Your task to perform on an android device: turn off translation in the chrome app Image 0: 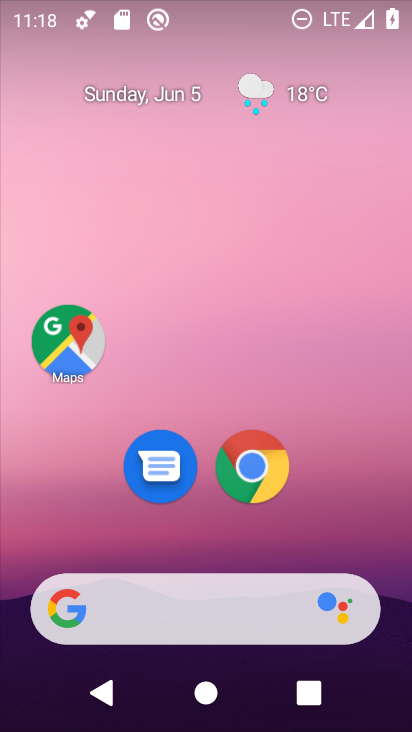
Step 0: drag from (347, 511) to (231, 30)
Your task to perform on an android device: turn off translation in the chrome app Image 1: 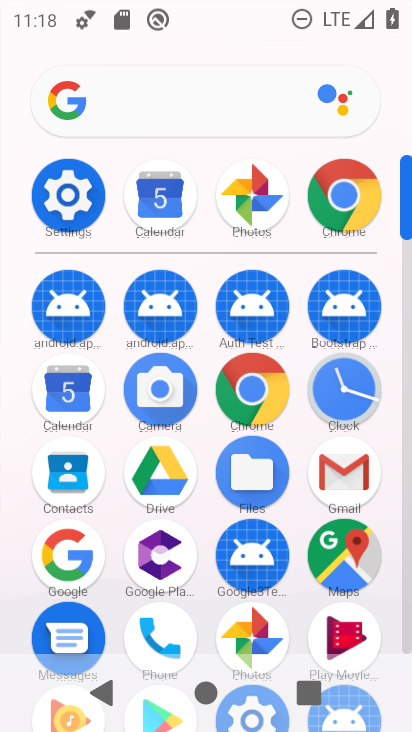
Step 1: drag from (6, 607) to (4, 275)
Your task to perform on an android device: turn off translation in the chrome app Image 2: 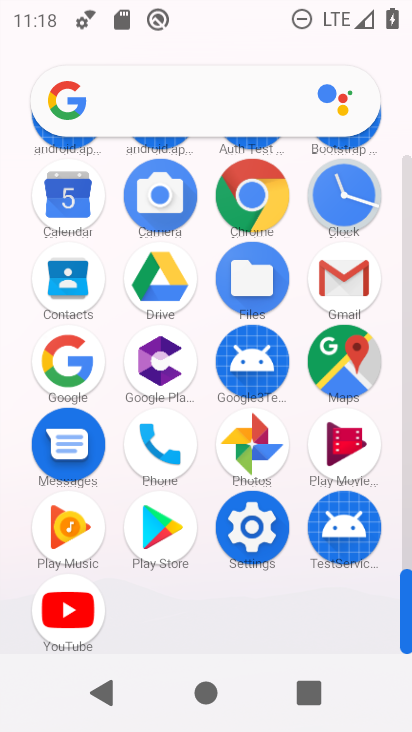
Step 2: click (245, 185)
Your task to perform on an android device: turn off translation in the chrome app Image 3: 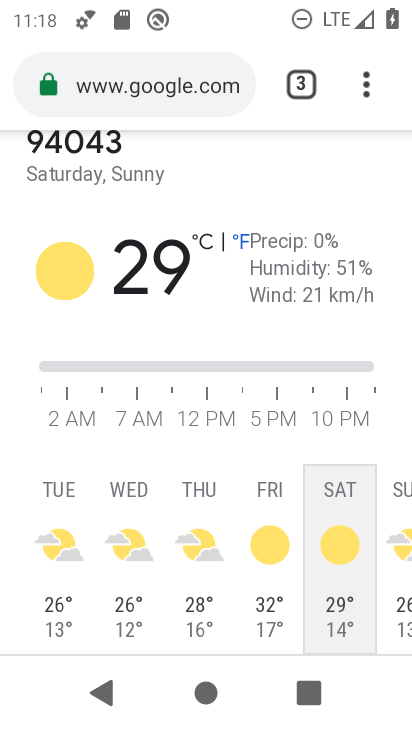
Step 3: drag from (364, 85) to (165, 512)
Your task to perform on an android device: turn off translation in the chrome app Image 4: 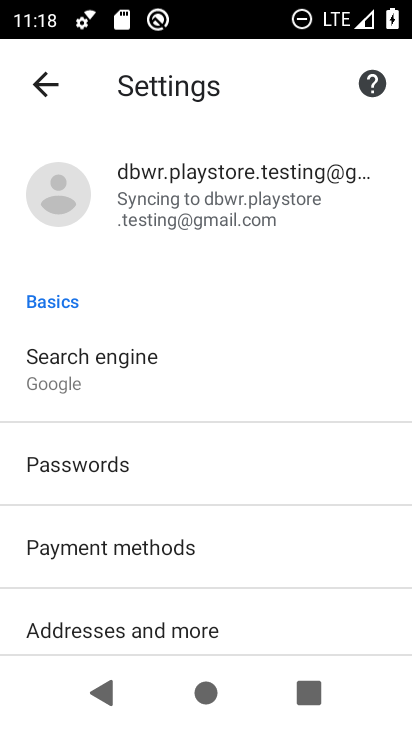
Step 4: drag from (240, 575) to (237, 228)
Your task to perform on an android device: turn off translation in the chrome app Image 5: 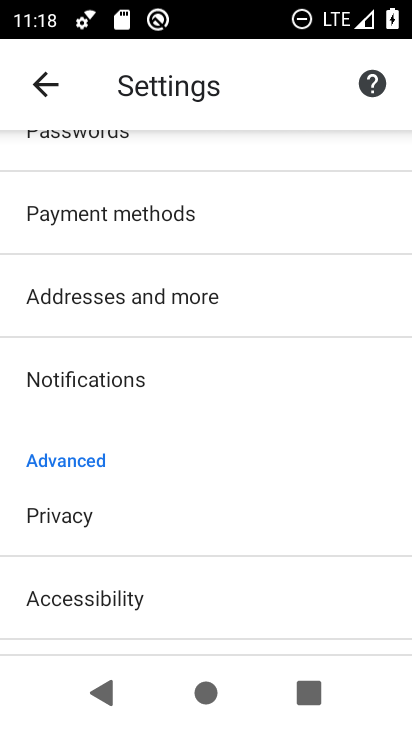
Step 5: drag from (235, 593) to (245, 214)
Your task to perform on an android device: turn off translation in the chrome app Image 6: 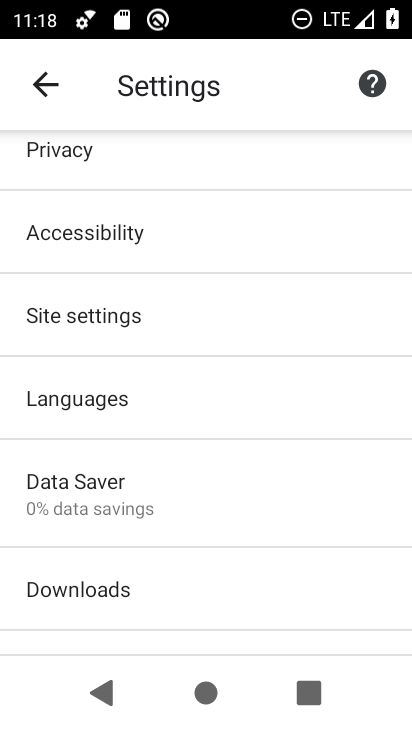
Step 6: click (181, 404)
Your task to perform on an android device: turn off translation in the chrome app Image 7: 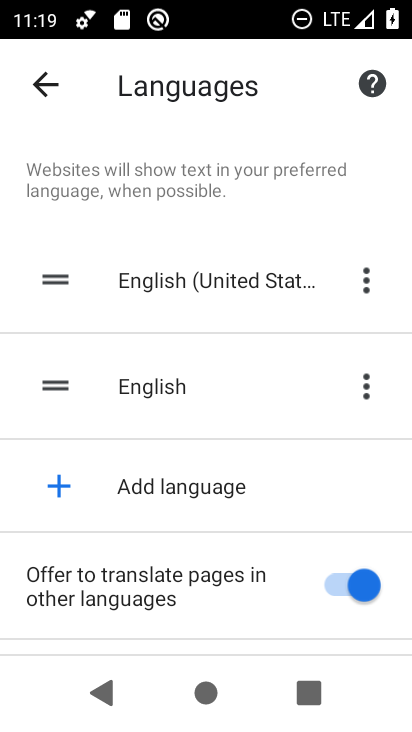
Step 7: click (315, 578)
Your task to perform on an android device: turn off translation in the chrome app Image 8: 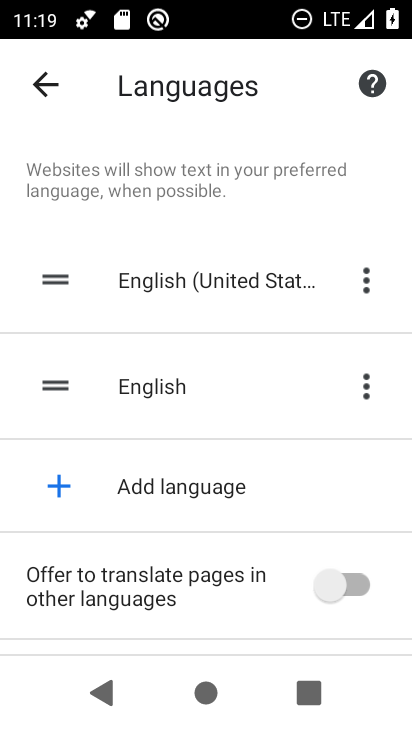
Step 8: task complete